Your task to perform on an android device: add a contact in the contacts app Image 0: 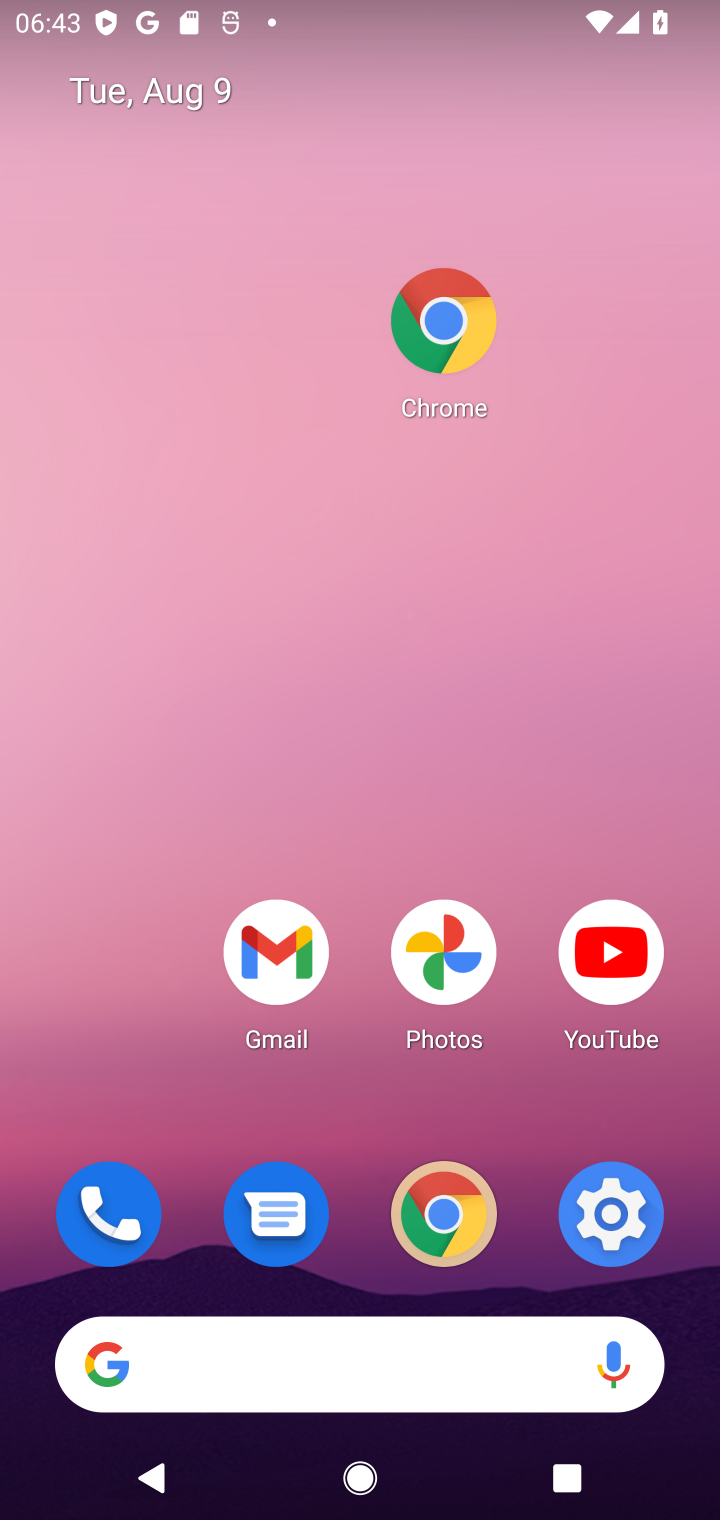
Step 0: drag from (437, 1393) to (448, 533)
Your task to perform on an android device: add a contact in the contacts app Image 1: 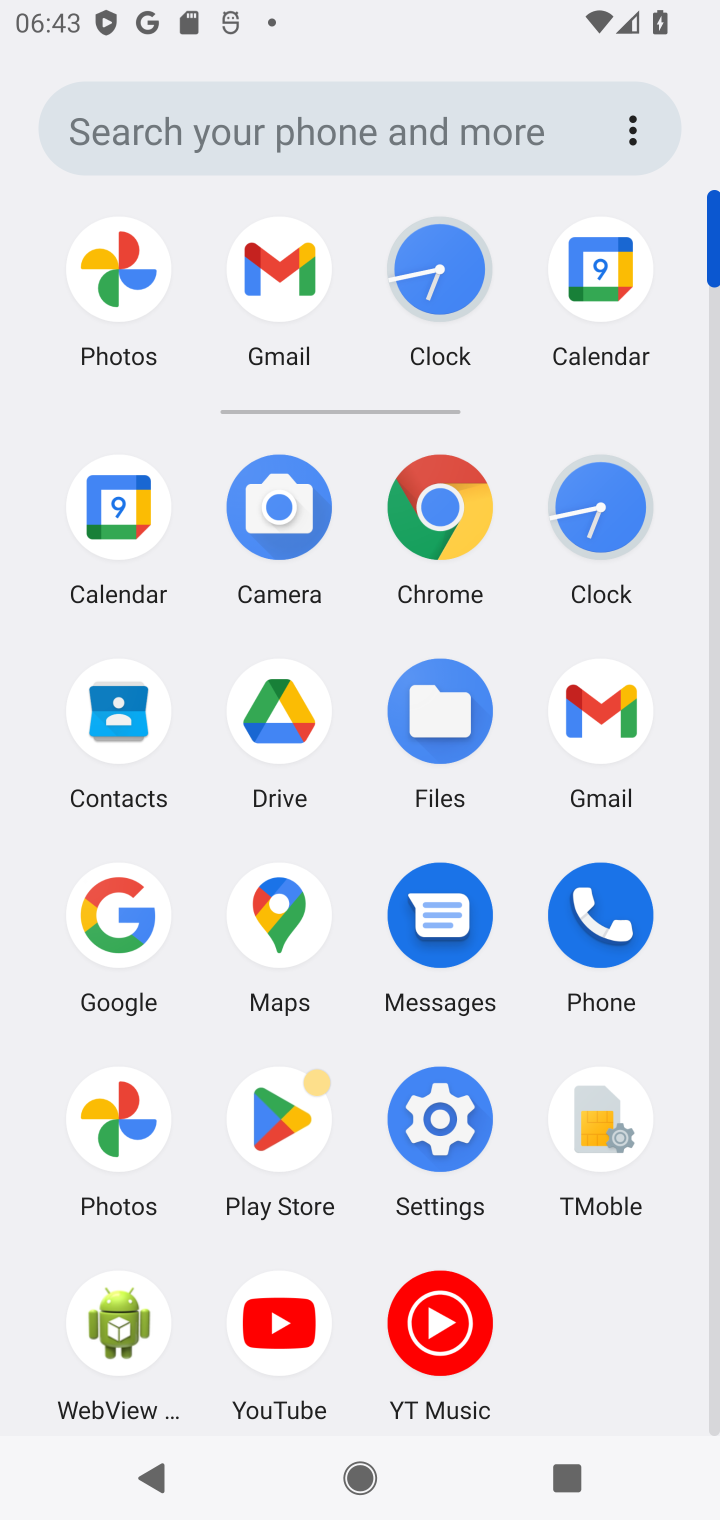
Step 1: click (600, 933)
Your task to perform on an android device: add a contact in the contacts app Image 2: 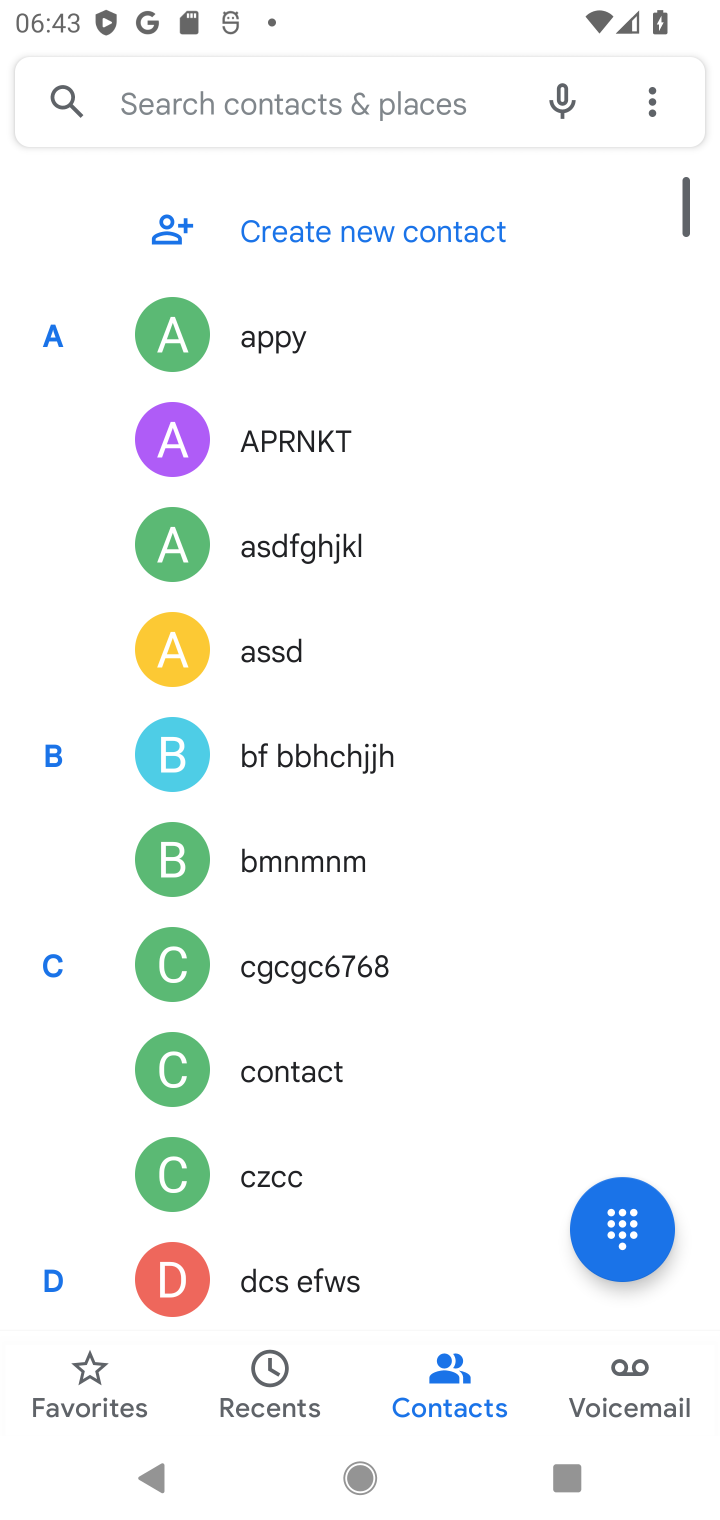
Step 2: click (312, 241)
Your task to perform on an android device: add a contact in the contacts app Image 3: 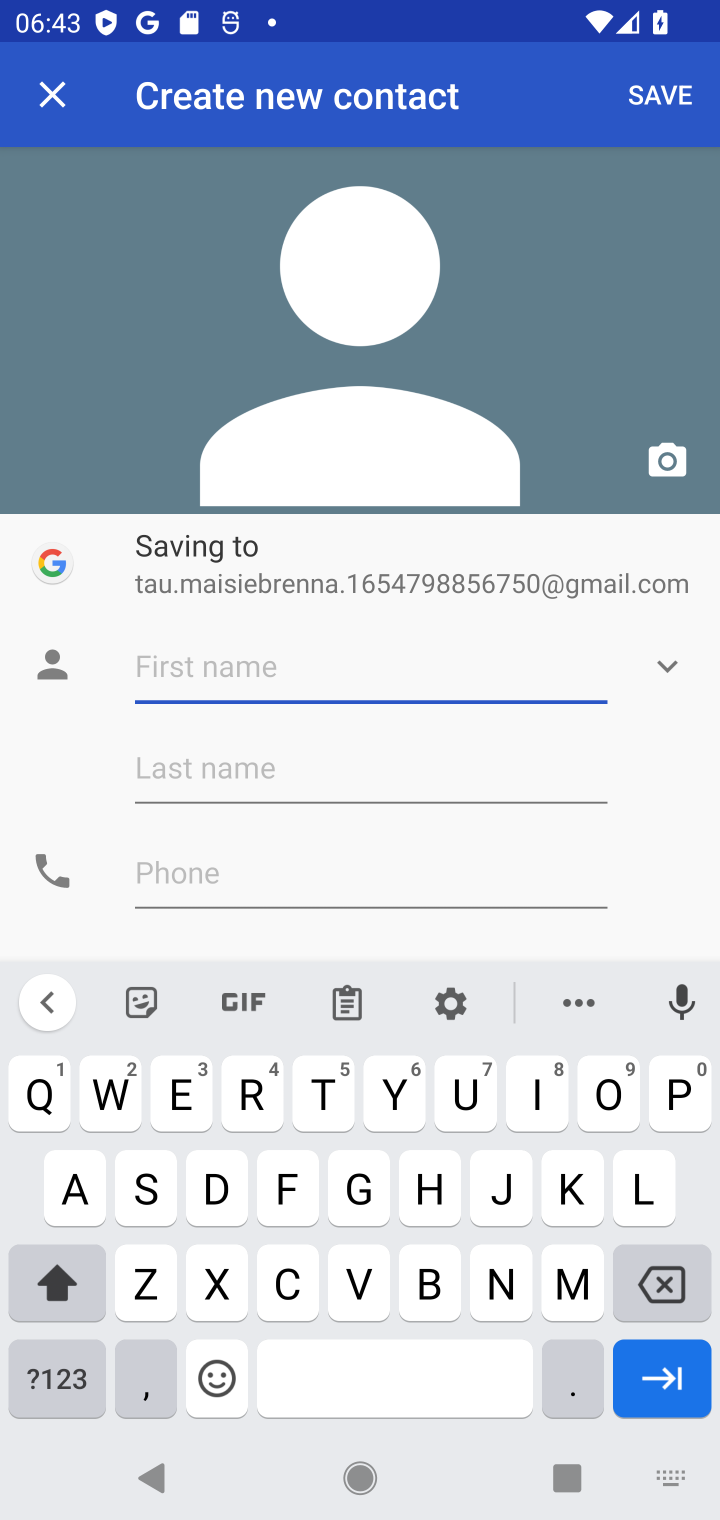
Step 3: click (388, 1108)
Your task to perform on an android device: add a contact in the contacts app Image 4: 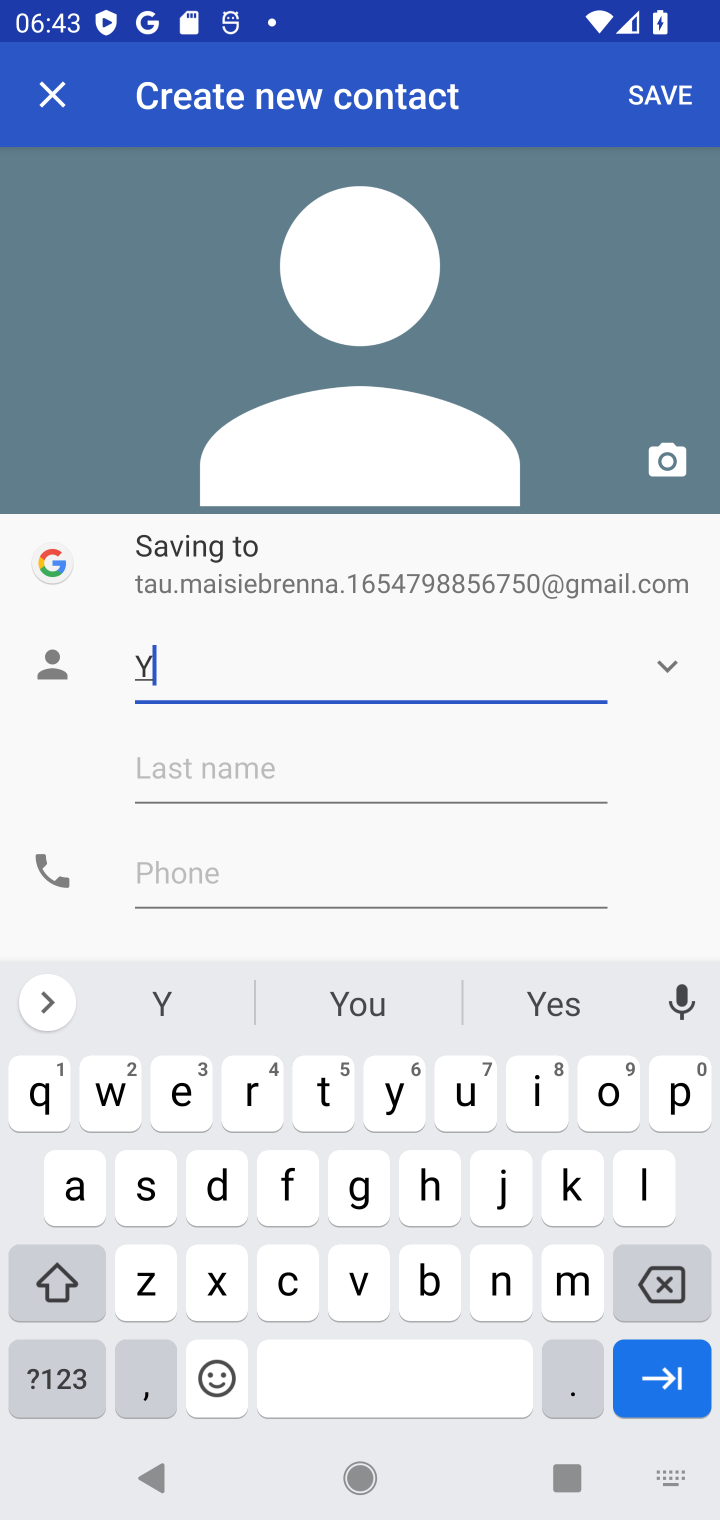
Step 4: click (161, 1093)
Your task to perform on an android device: add a contact in the contacts app Image 5: 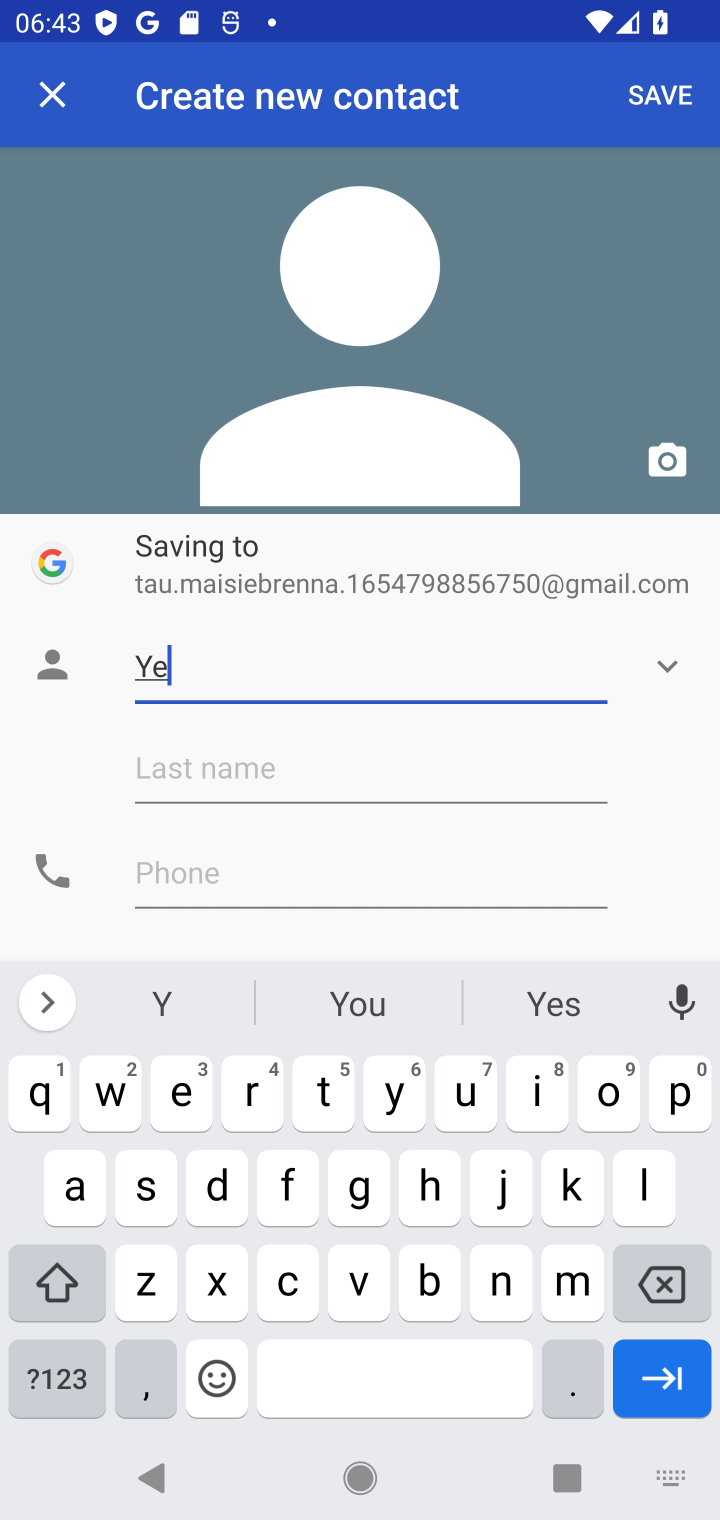
Step 5: click (119, 1106)
Your task to perform on an android device: add a contact in the contacts app Image 6: 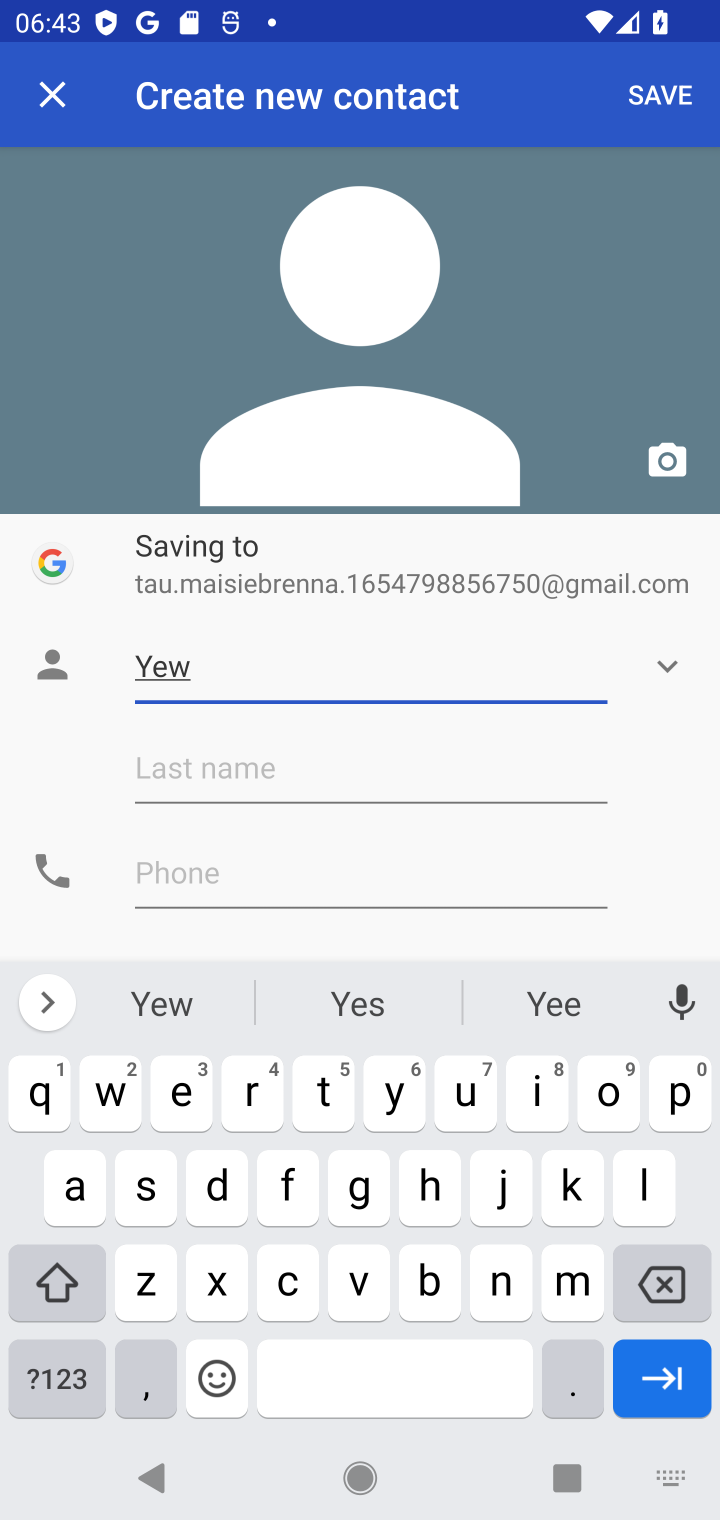
Step 6: click (202, 866)
Your task to perform on an android device: add a contact in the contacts app Image 7: 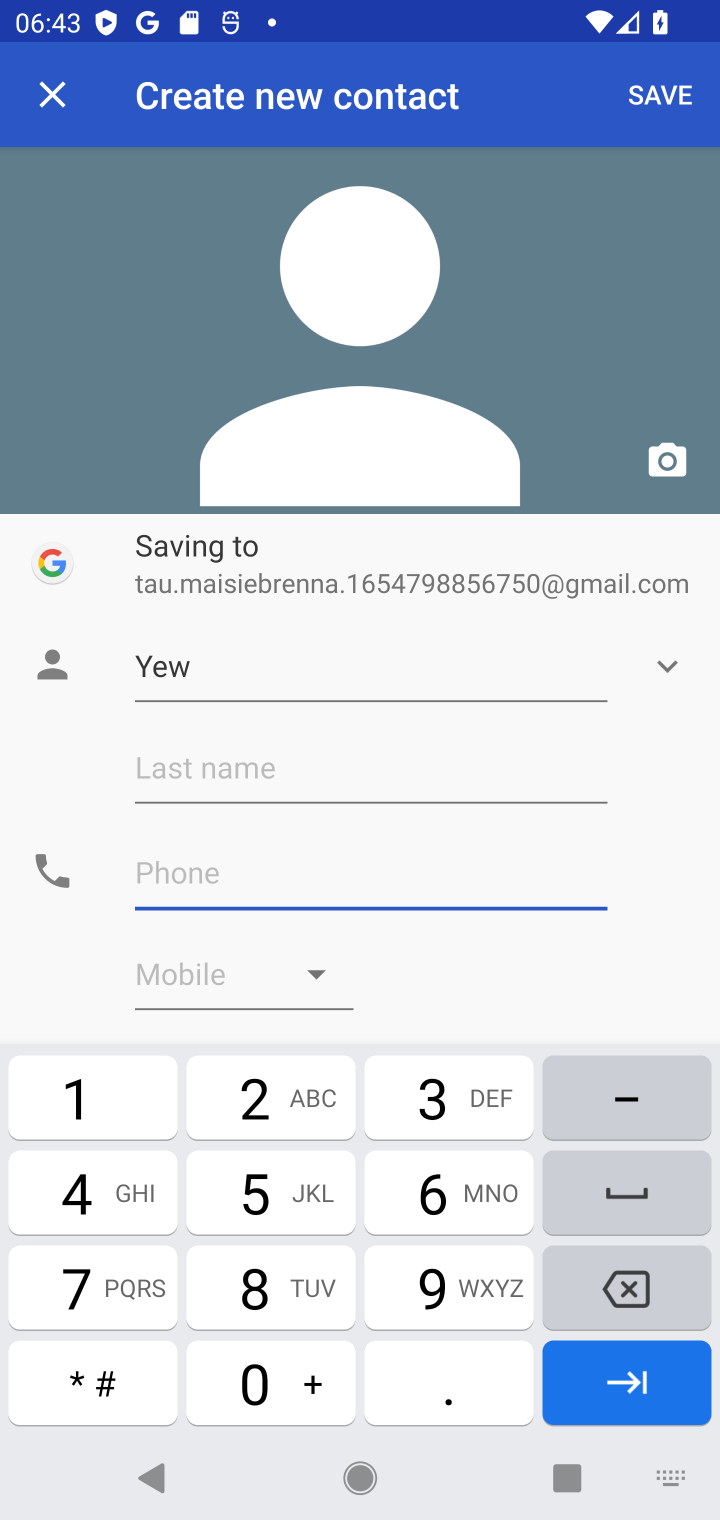
Step 7: click (265, 1199)
Your task to perform on an android device: add a contact in the contacts app Image 8: 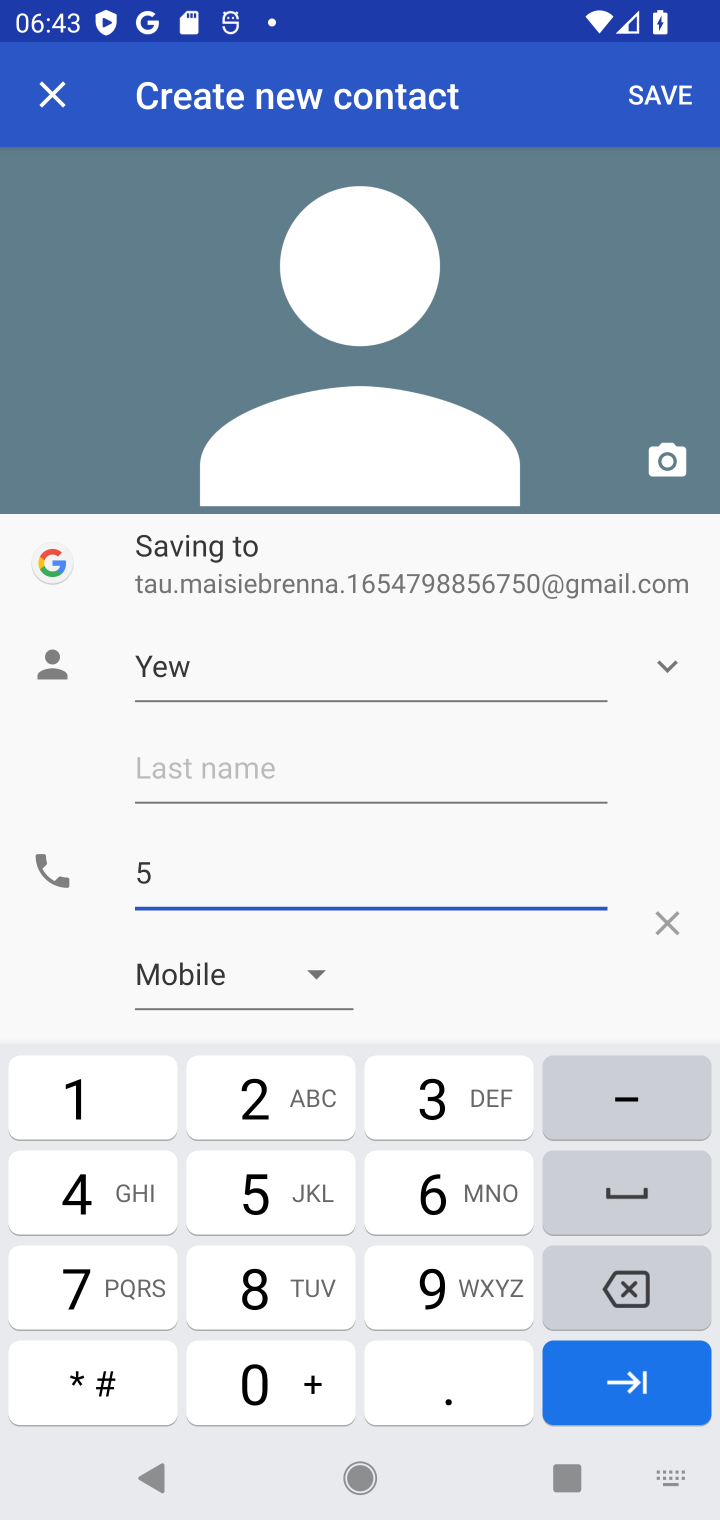
Step 8: click (100, 1305)
Your task to perform on an android device: add a contact in the contacts app Image 9: 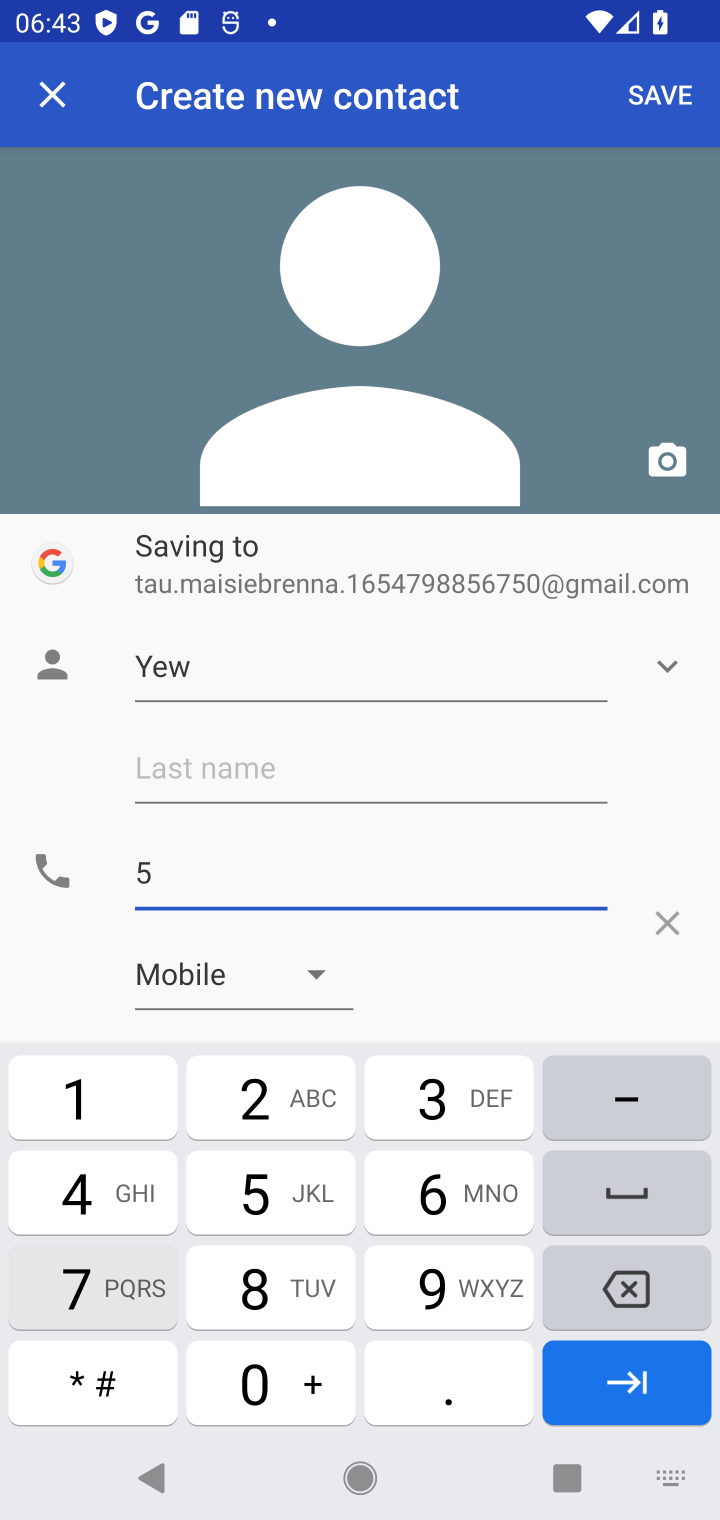
Step 9: click (99, 1305)
Your task to perform on an android device: add a contact in the contacts app Image 10: 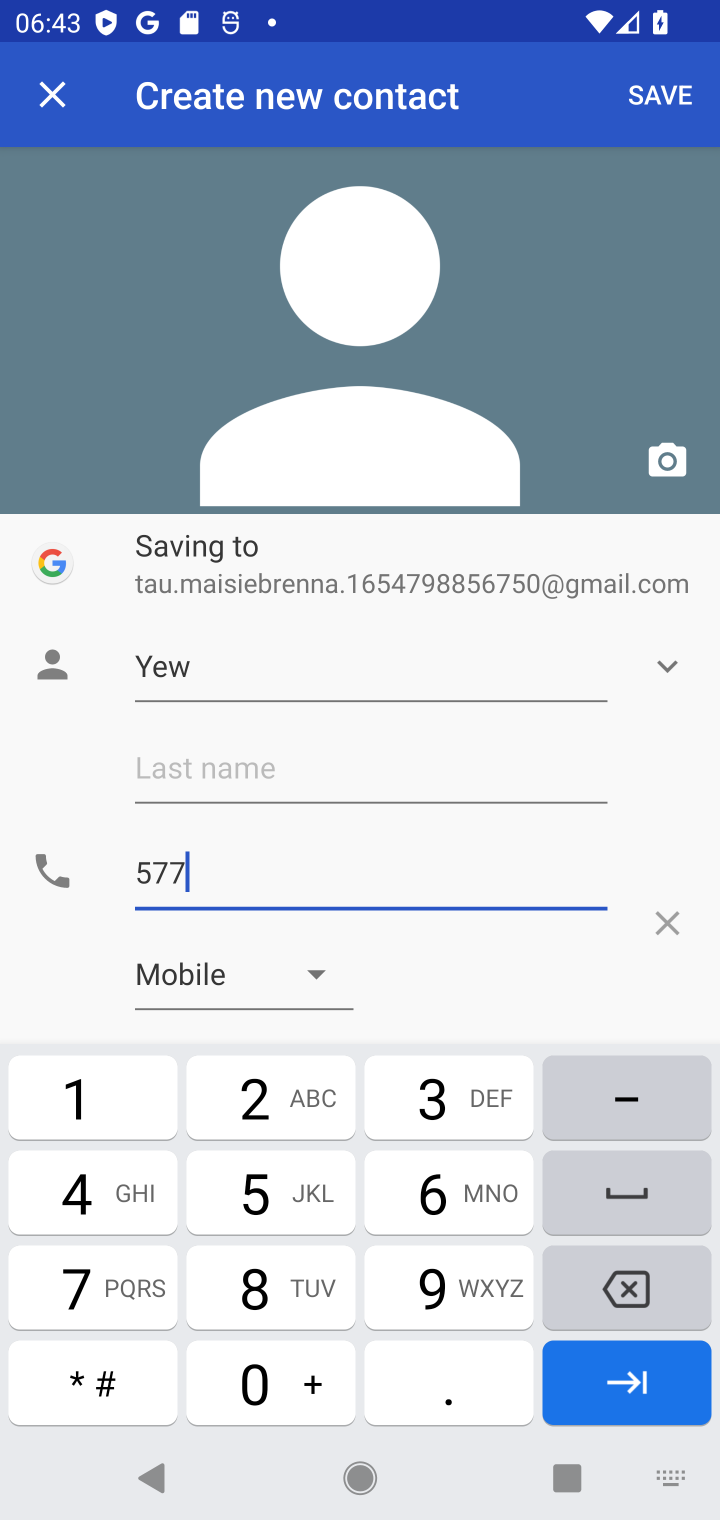
Step 10: click (214, 1212)
Your task to perform on an android device: add a contact in the contacts app Image 11: 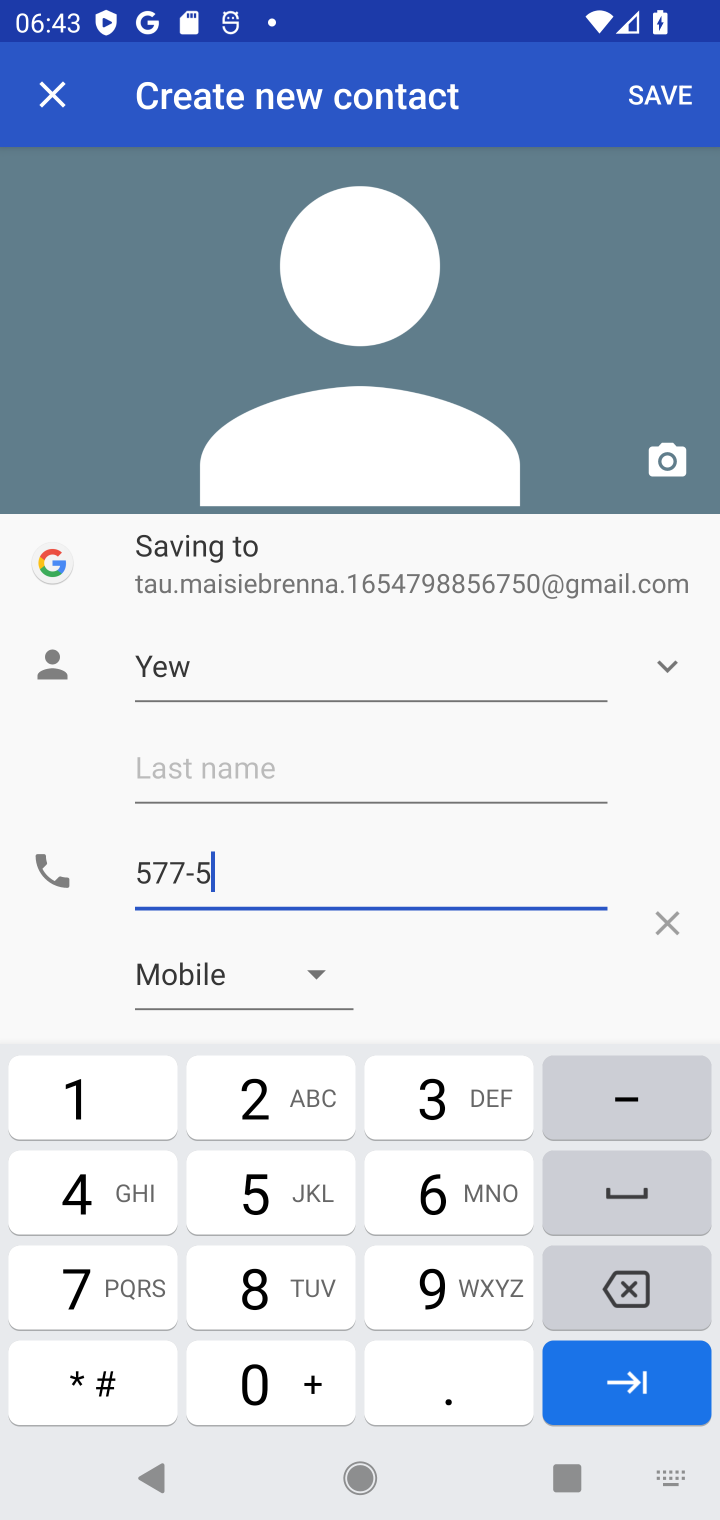
Step 11: click (385, 1118)
Your task to perform on an android device: add a contact in the contacts app Image 12: 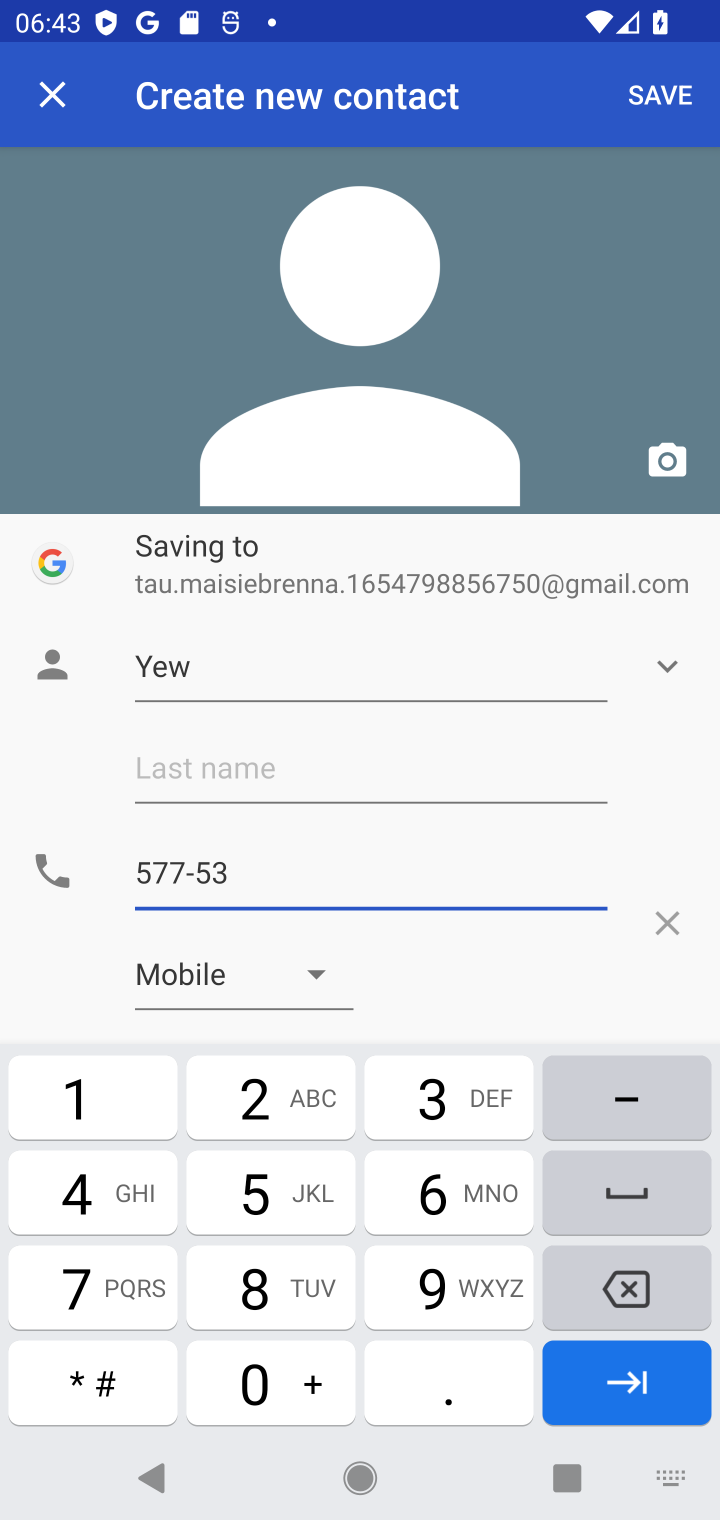
Step 12: click (421, 1289)
Your task to perform on an android device: add a contact in the contacts app Image 13: 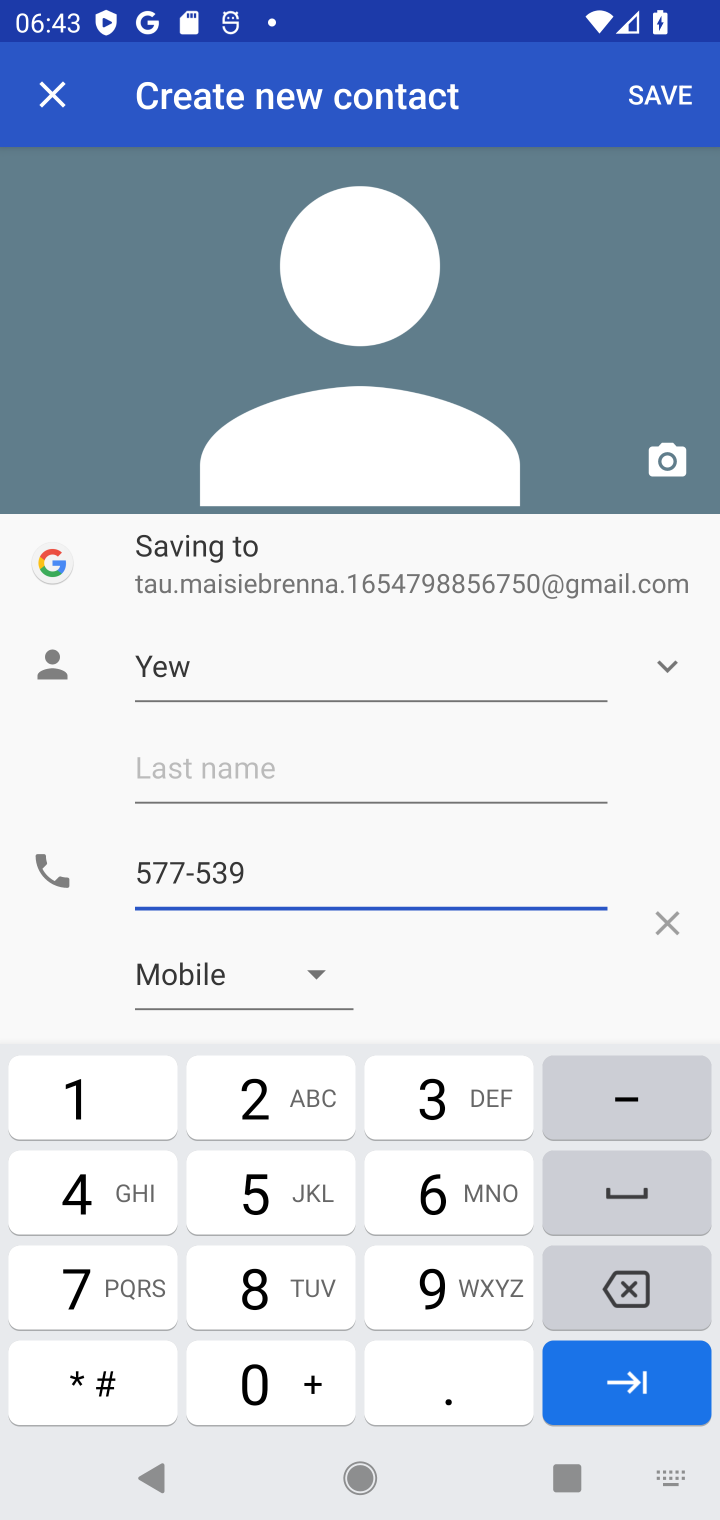
Step 13: click (317, 1233)
Your task to perform on an android device: add a contact in the contacts app Image 14: 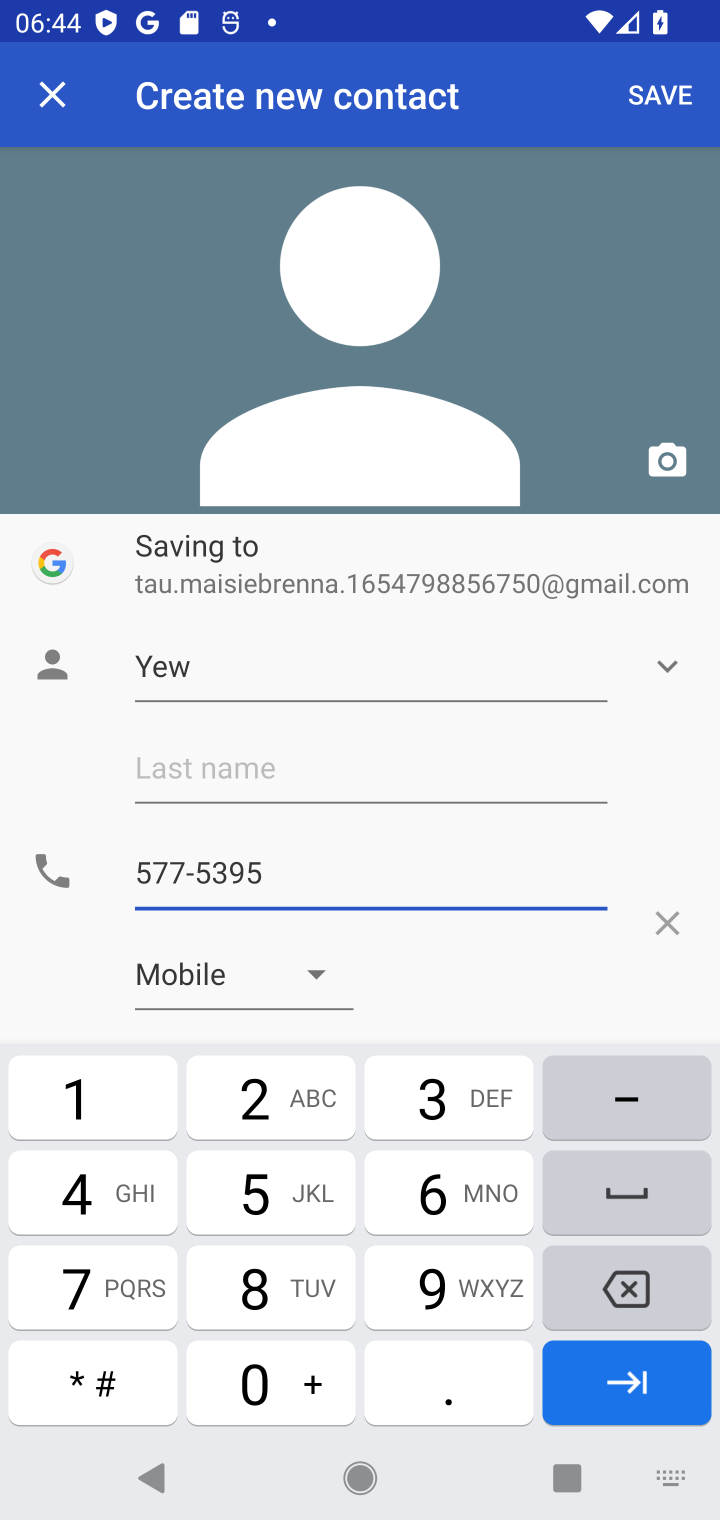
Step 14: click (648, 102)
Your task to perform on an android device: add a contact in the contacts app Image 15: 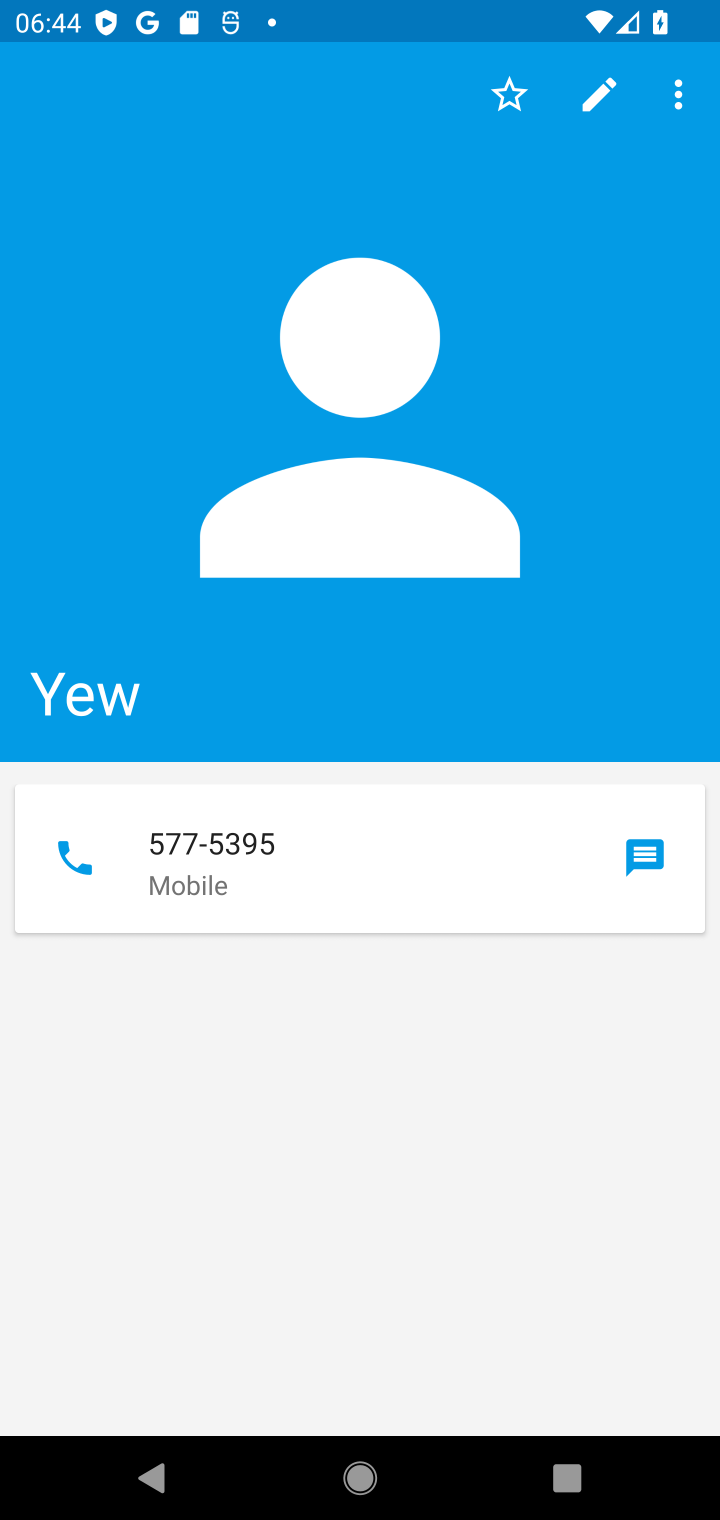
Step 15: task complete